Your task to perform on an android device: Open network settings Image 0: 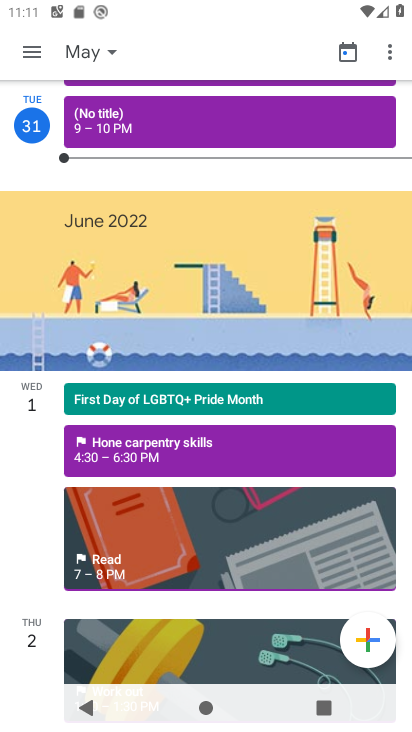
Step 0: drag from (300, 19) to (323, 674)
Your task to perform on an android device: Open network settings Image 1: 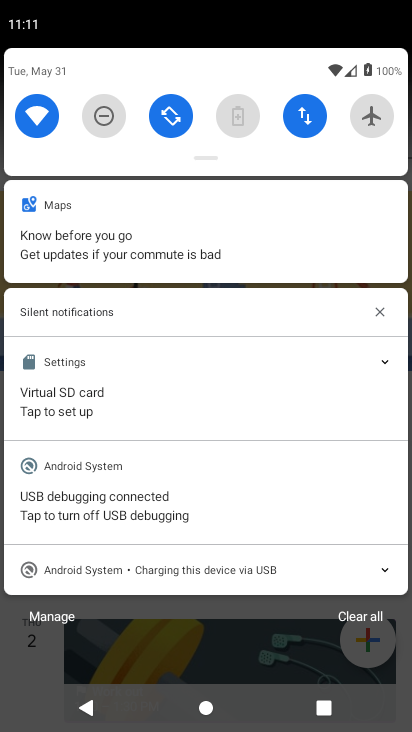
Step 1: click (310, 102)
Your task to perform on an android device: Open network settings Image 2: 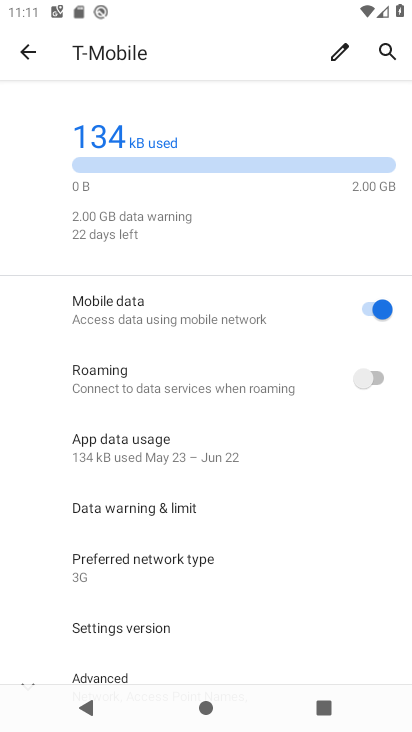
Step 2: task complete